Your task to perform on an android device: Do I have any events this weekend? Image 0: 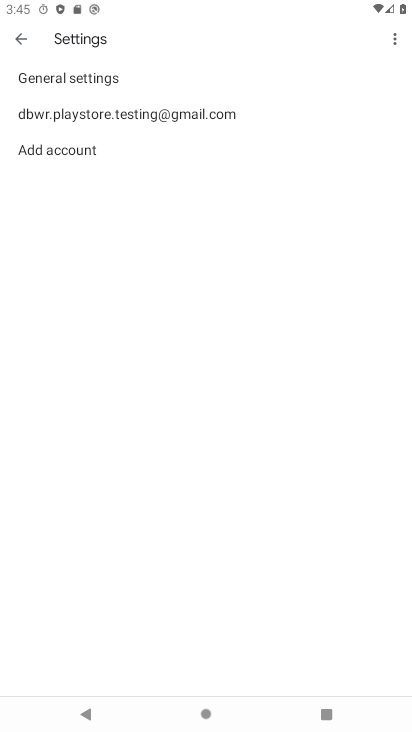
Step 0: press home button
Your task to perform on an android device: Do I have any events this weekend? Image 1: 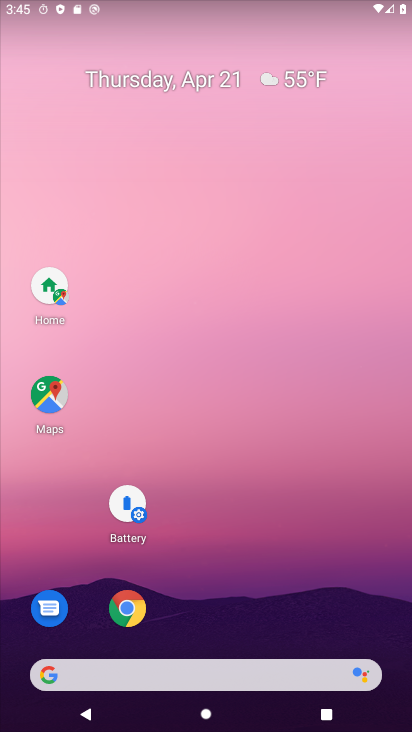
Step 1: drag from (263, 470) to (332, 90)
Your task to perform on an android device: Do I have any events this weekend? Image 2: 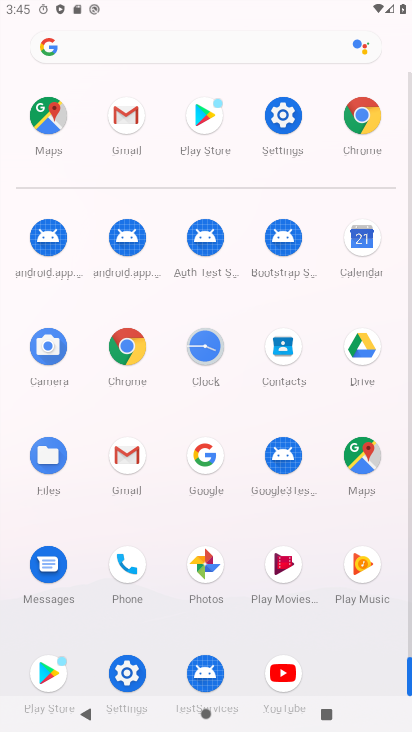
Step 2: click (362, 241)
Your task to perform on an android device: Do I have any events this weekend? Image 3: 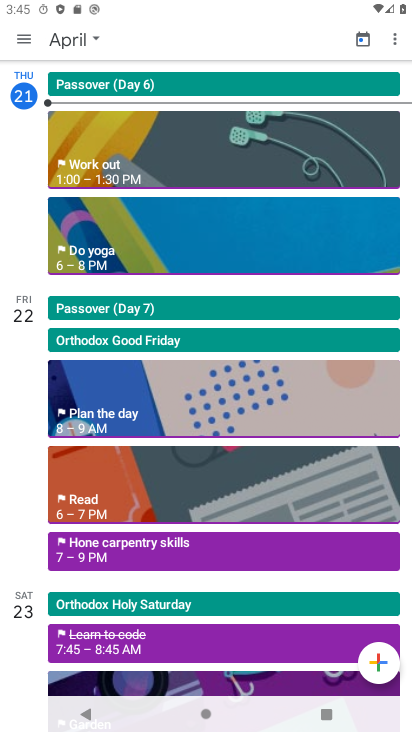
Step 3: click (84, 59)
Your task to perform on an android device: Do I have any events this weekend? Image 4: 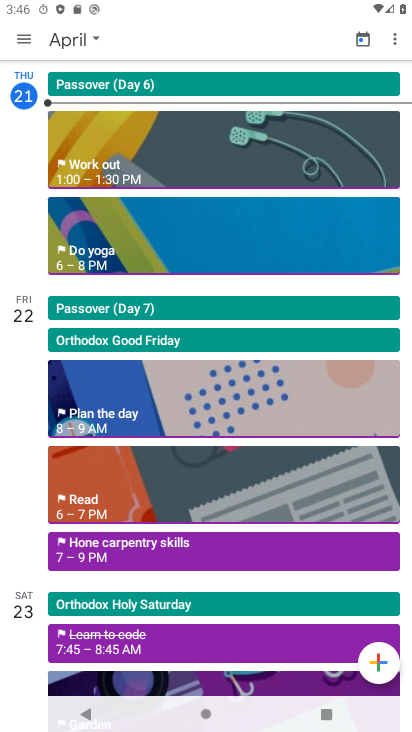
Step 4: click (84, 40)
Your task to perform on an android device: Do I have any events this weekend? Image 5: 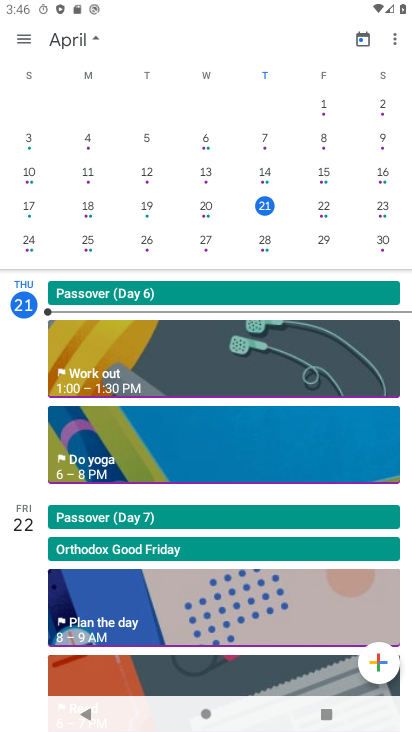
Step 5: click (271, 250)
Your task to perform on an android device: Do I have any events this weekend? Image 6: 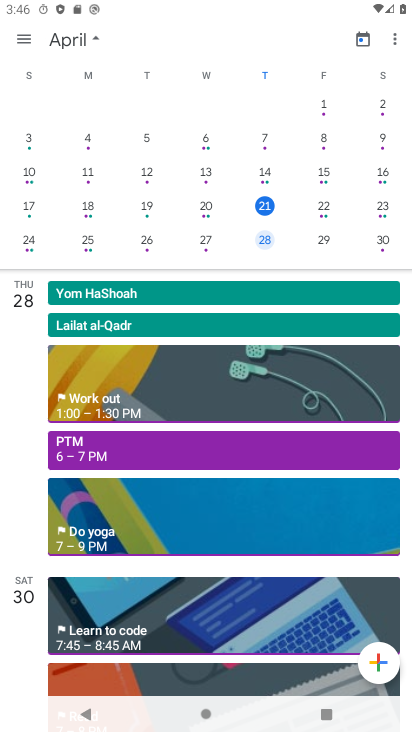
Step 6: task complete